Your task to perform on an android device: check storage Image 0: 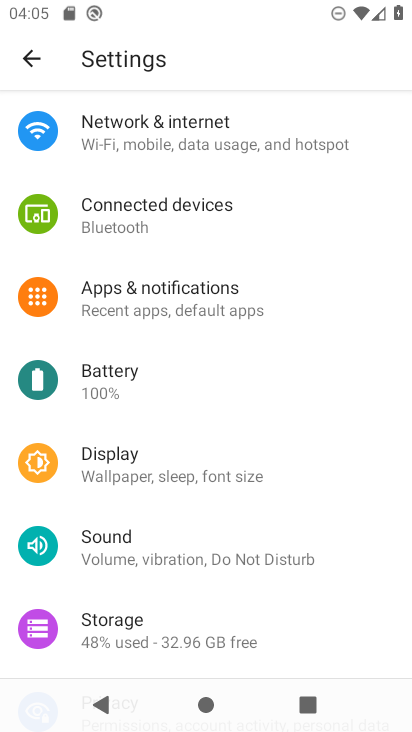
Step 0: press home button
Your task to perform on an android device: check storage Image 1: 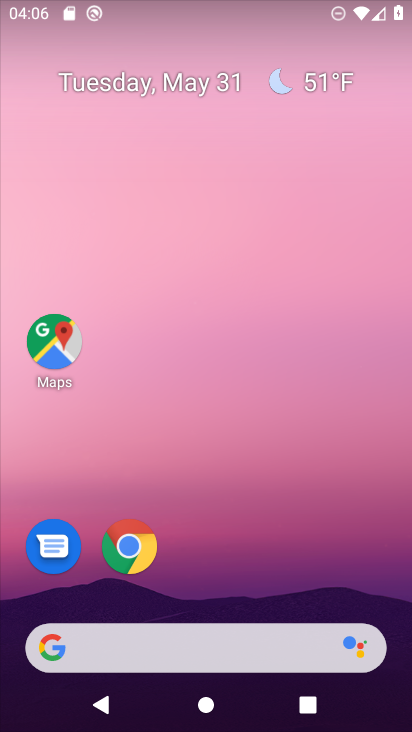
Step 1: drag from (191, 619) to (252, 176)
Your task to perform on an android device: check storage Image 2: 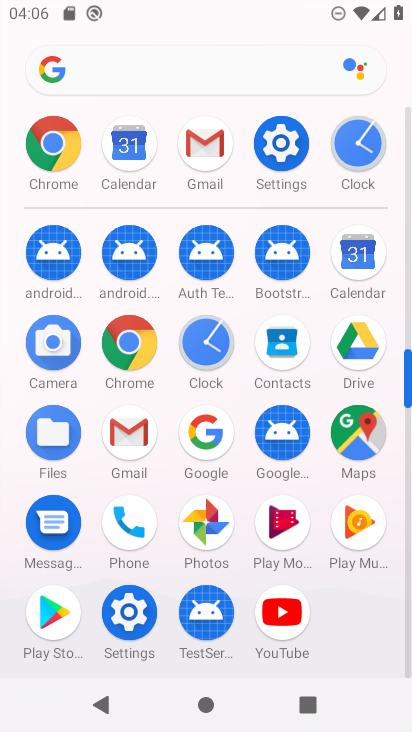
Step 2: click (281, 136)
Your task to perform on an android device: check storage Image 3: 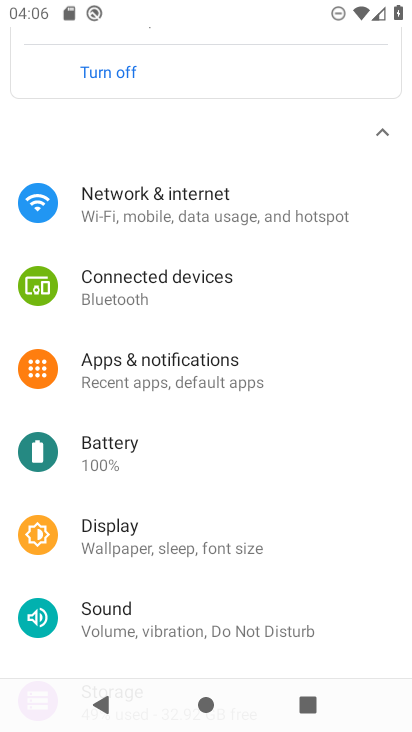
Step 3: drag from (159, 585) to (194, 268)
Your task to perform on an android device: check storage Image 4: 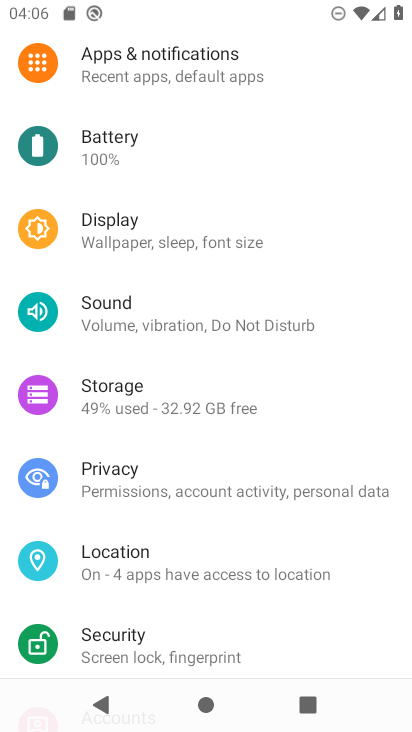
Step 4: click (105, 403)
Your task to perform on an android device: check storage Image 5: 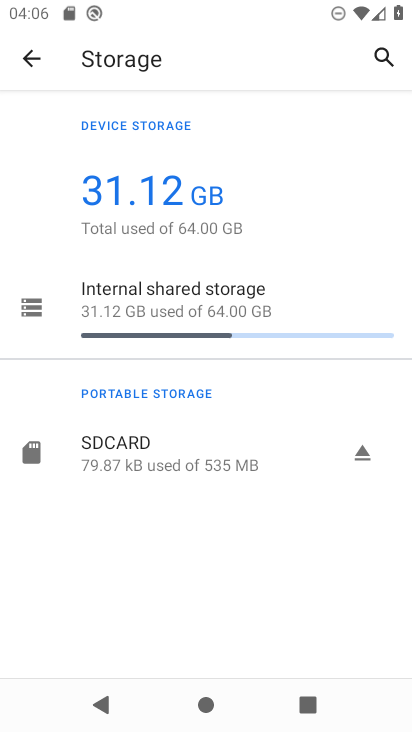
Step 5: task complete